Your task to perform on an android device: turn off sleep mode Image 0: 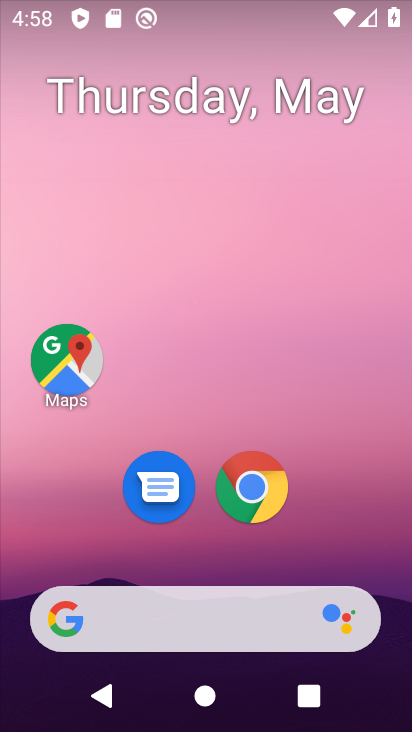
Step 0: drag from (340, 520) to (275, 33)
Your task to perform on an android device: turn off sleep mode Image 1: 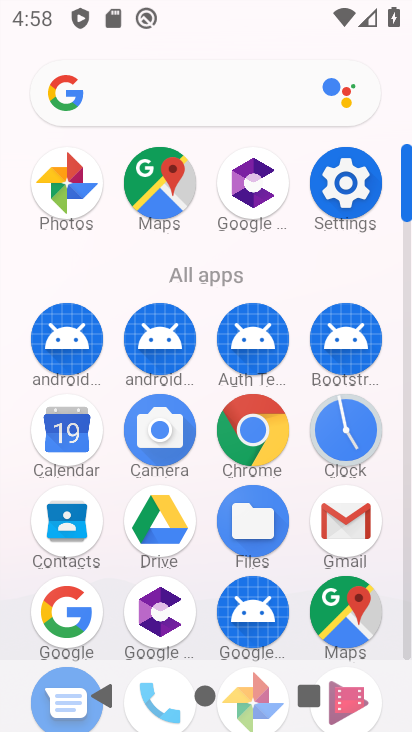
Step 1: click (330, 185)
Your task to perform on an android device: turn off sleep mode Image 2: 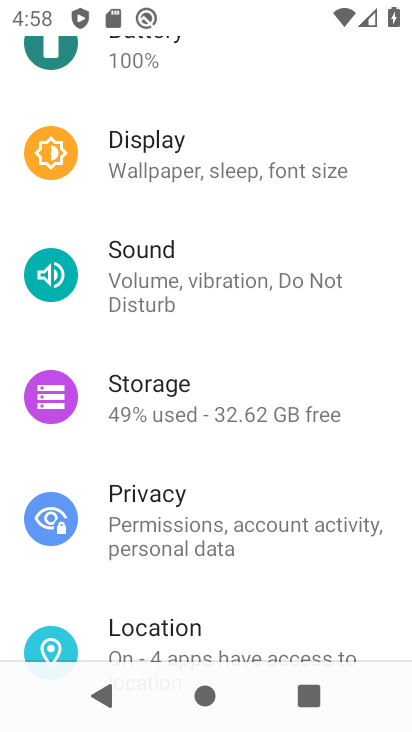
Step 2: click (243, 157)
Your task to perform on an android device: turn off sleep mode Image 3: 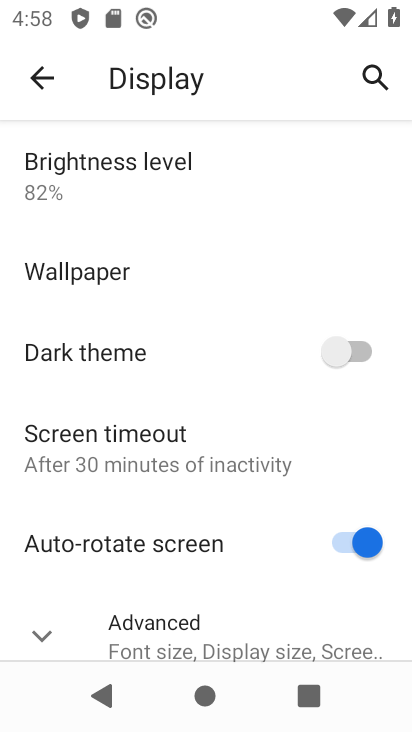
Step 3: click (46, 629)
Your task to perform on an android device: turn off sleep mode Image 4: 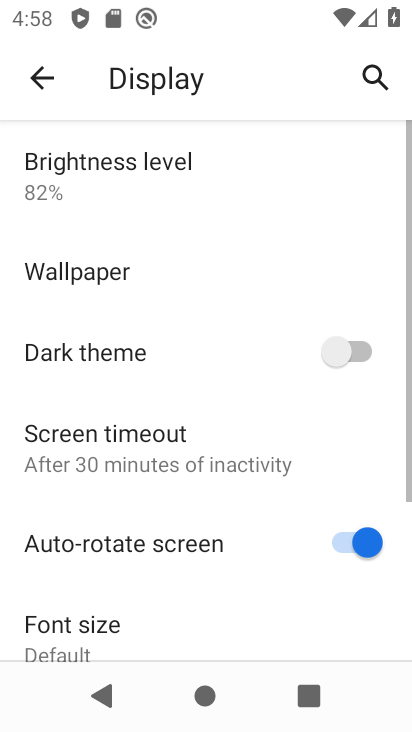
Step 4: task complete